Your task to perform on an android device: What's the weather going to be this weekend? Image 0: 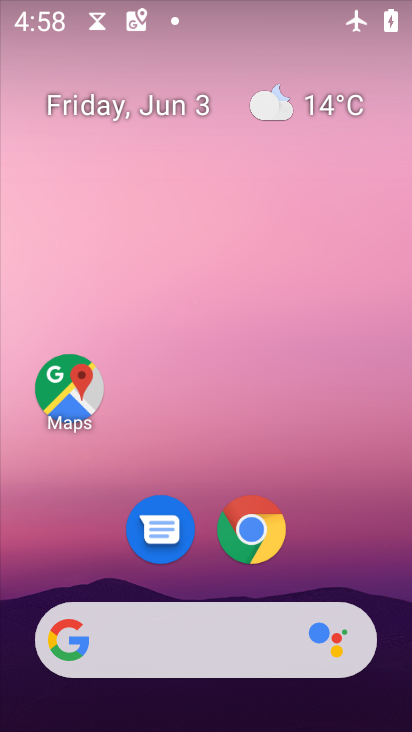
Step 0: click (338, 60)
Your task to perform on an android device: What's the weather going to be this weekend? Image 1: 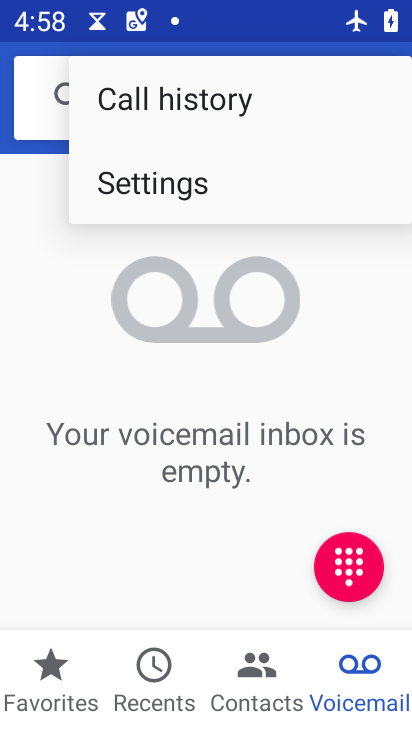
Step 1: press home button
Your task to perform on an android device: What's the weather going to be this weekend? Image 2: 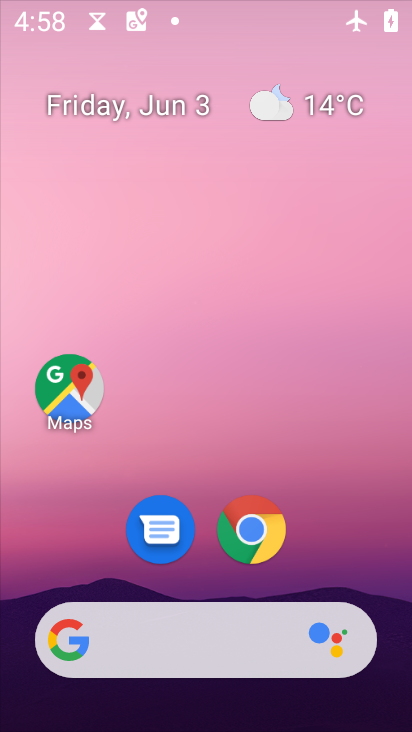
Step 2: drag from (332, 566) to (272, 0)
Your task to perform on an android device: What's the weather going to be this weekend? Image 3: 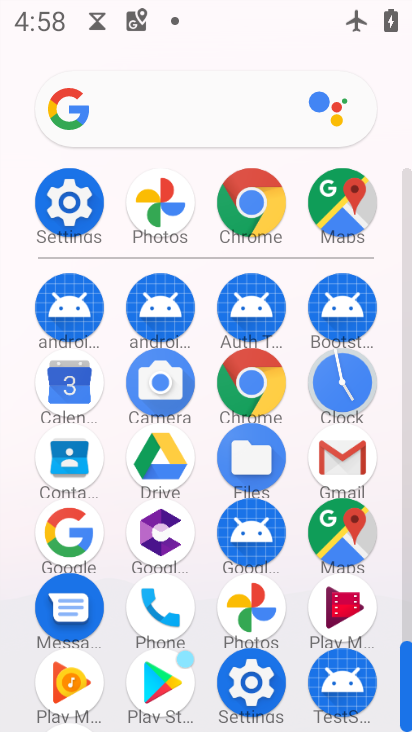
Step 3: click (67, 87)
Your task to perform on an android device: What's the weather going to be this weekend? Image 4: 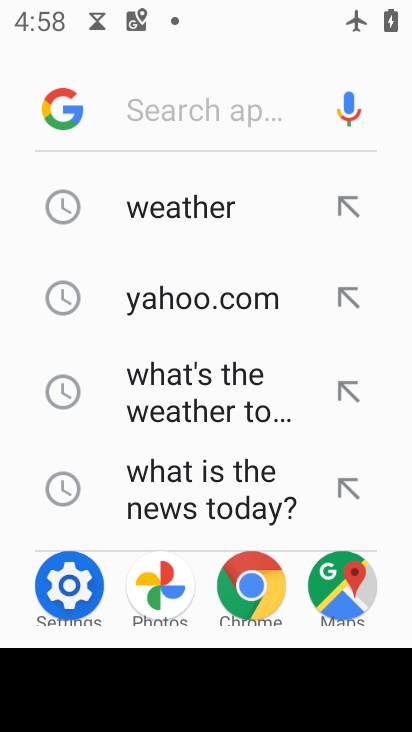
Step 4: click (67, 86)
Your task to perform on an android device: What's the weather going to be this weekend? Image 5: 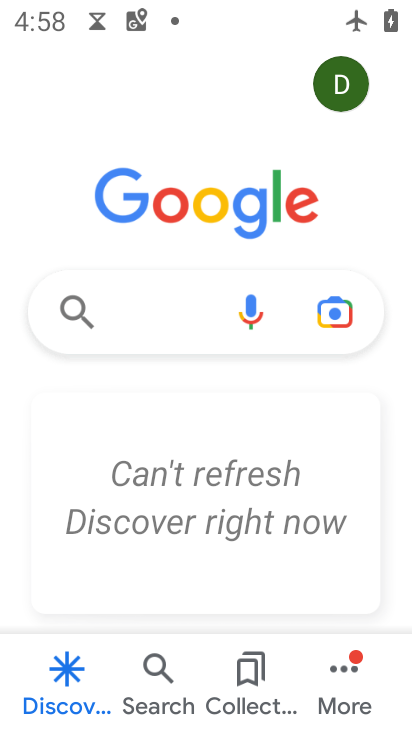
Step 5: task complete